Your task to perform on an android device: Open Reddit.com Image 0: 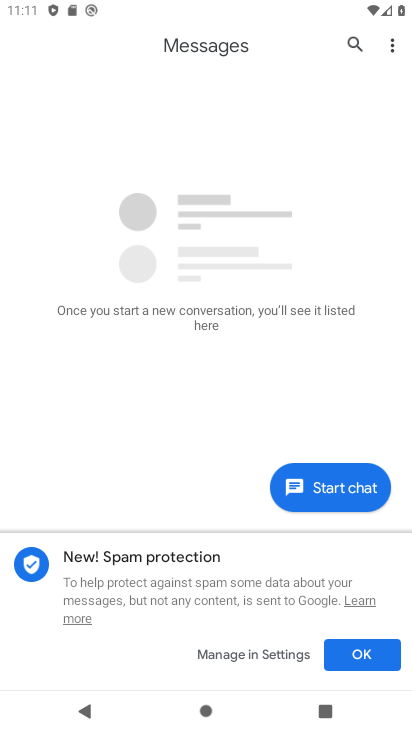
Step 0: press home button
Your task to perform on an android device: Open Reddit.com Image 1: 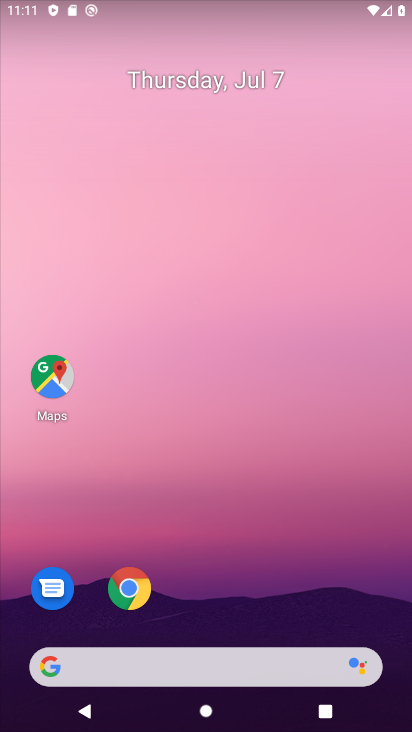
Step 1: drag from (193, 609) to (183, 57)
Your task to perform on an android device: Open Reddit.com Image 2: 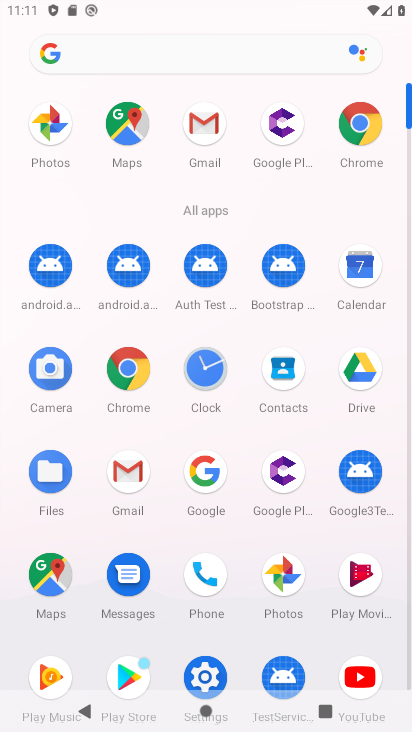
Step 2: click (209, 469)
Your task to perform on an android device: Open Reddit.com Image 3: 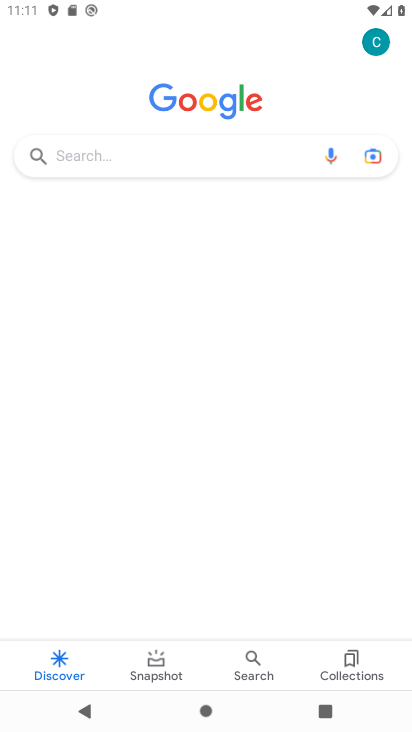
Step 3: click (149, 151)
Your task to perform on an android device: Open Reddit.com Image 4: 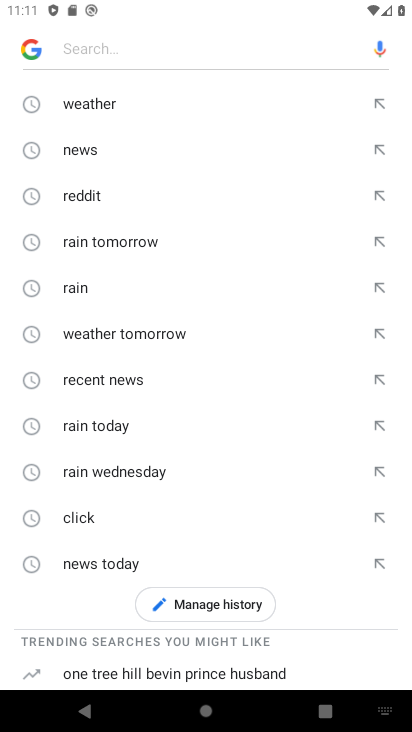
Step 4: type "reddit.com"
Your task to perform on an android device: Open Reddit.com Image 5: 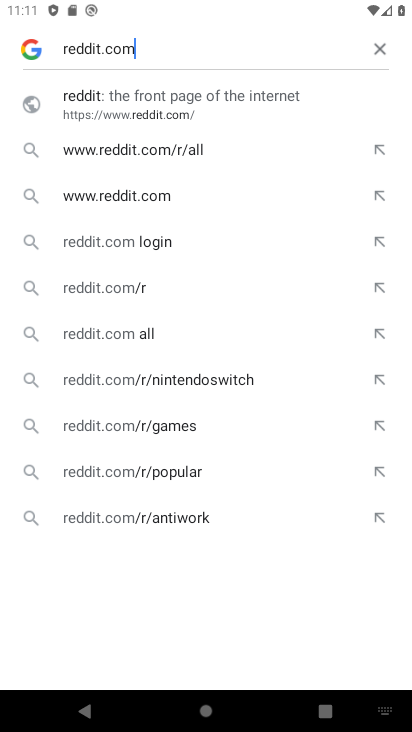
Step 5: click (206, 104)
Your task to perform on an android device: Open Reddit.com Image 6: 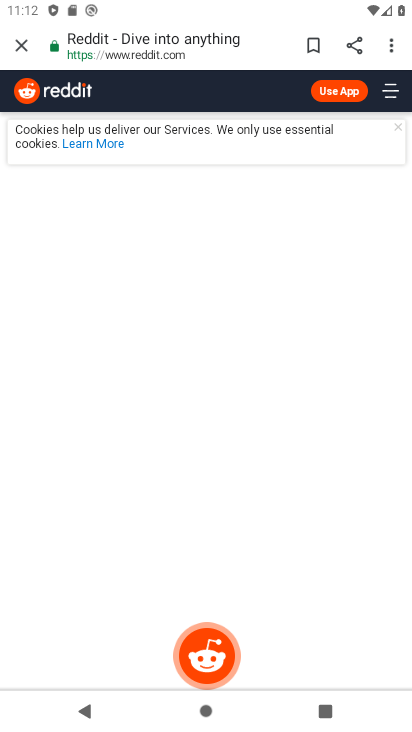
Step 6: task complete